Your task to perform on an android device: change text size in settings app Image 0: 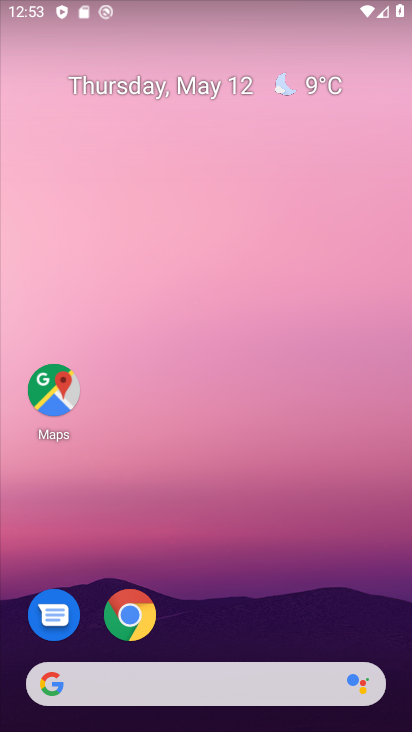
Step 0: drag from (233, 618) to (362, 8)
Your task to perform on an android device: change text size in settings app Image 1: 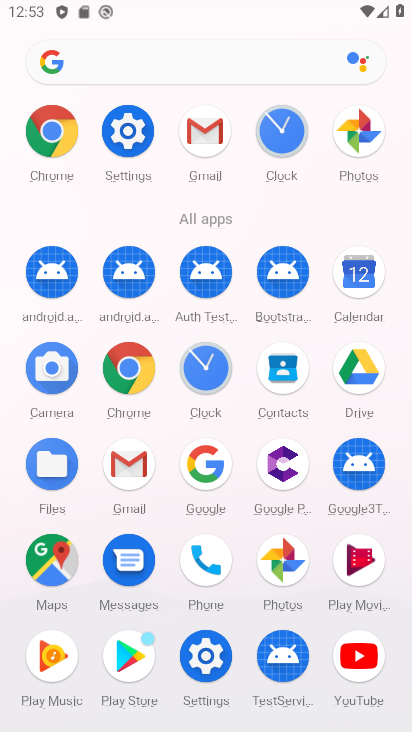
Step 1: click (134, 129)
Your task to perform on an android device: change text size in settings app Image 2: 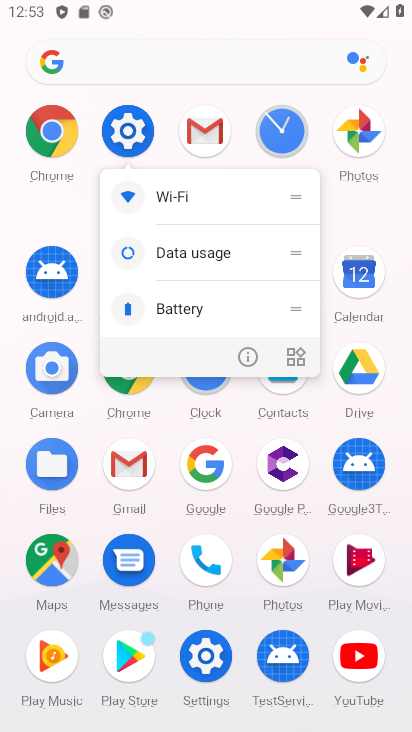
Step 2: click (134, 129)
Your task to perform on an android device: change text size in settings app Image 3: 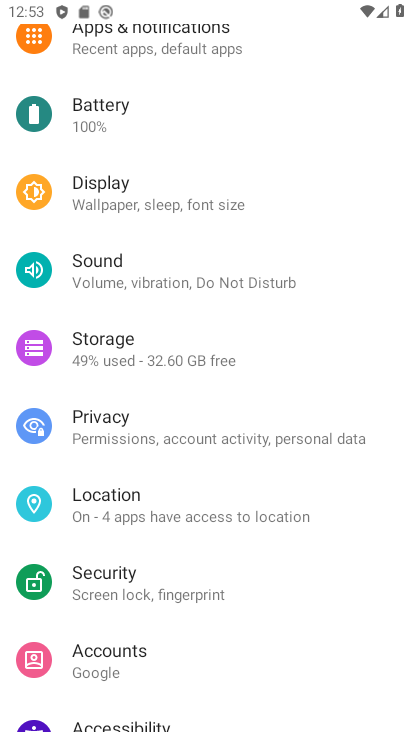
Step 3: drag from (116, 300) to (100, 610)
Your task to perform on an android device: change text size in settings app Image 4: 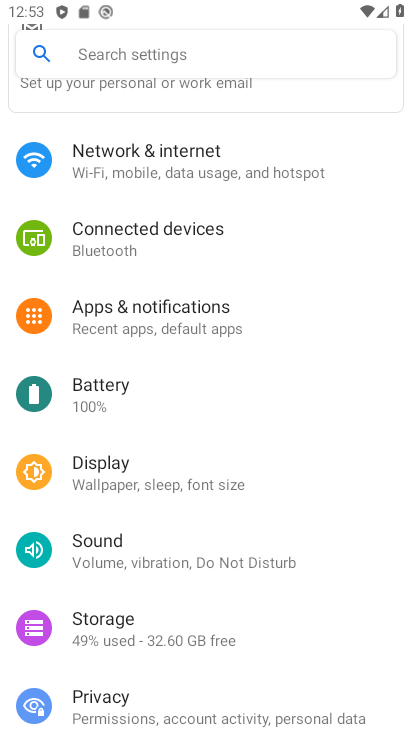
Step 4: click (171, 479)
Your task to perform on an android device: change text size in settings app Image 5: 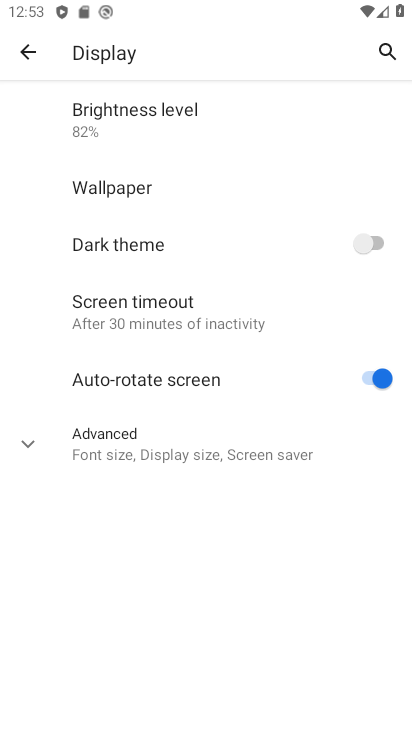
Step 5: click (256, 450)
Your task to perform on an android device: change text size in settings app Image 6: 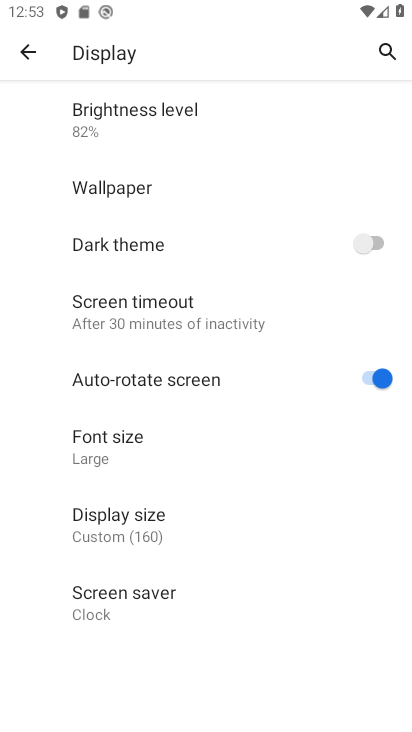
Step 6: click (187, 459)
Your task to perform on an android device: change text size in settings app Image 7: 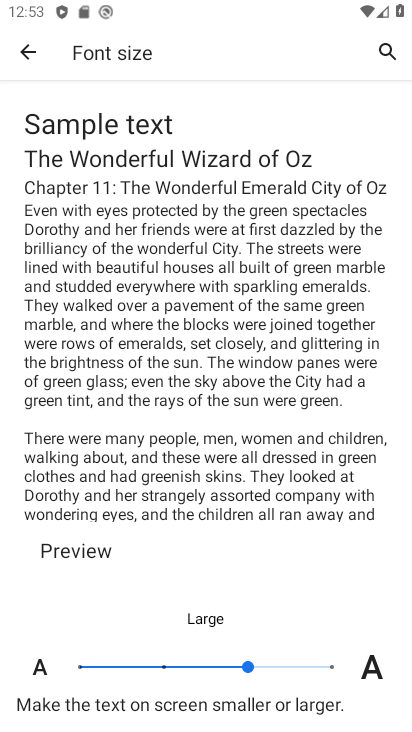
Step 7: click (336, 665)
Your task to perform on an android device: change text size in settings app Image 8: 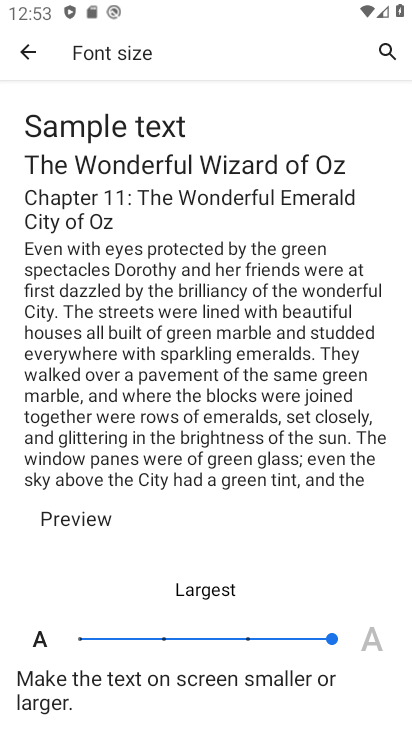
Step 8: task complete